Your task to perform on an android device: delete the emails in spam in the gmail app Image 0: 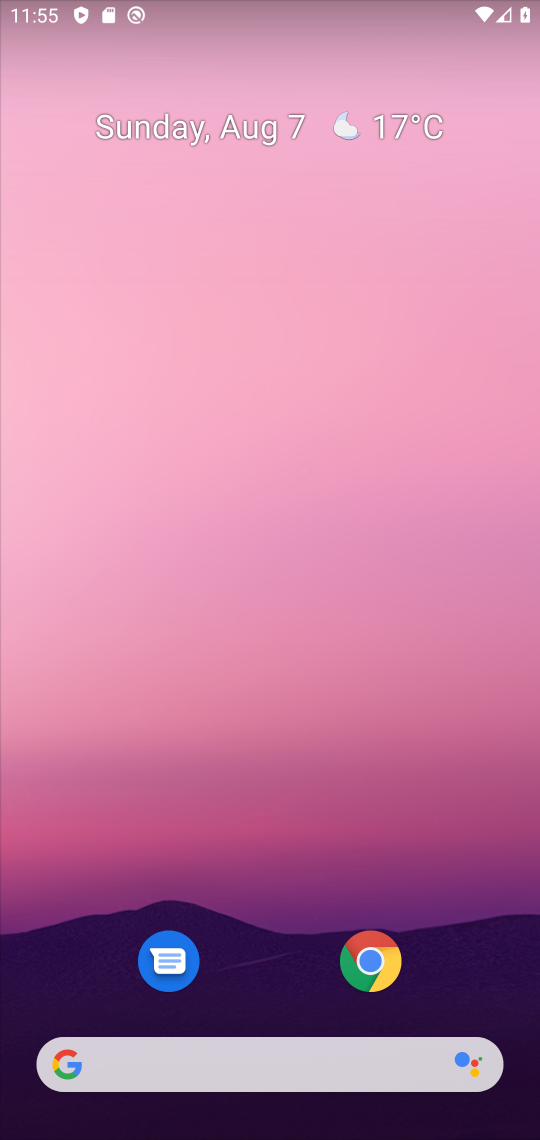
Step 0: click (362, 960)
Your task to perform on an android device: delete the emails in spam in the gmail app Image 1: 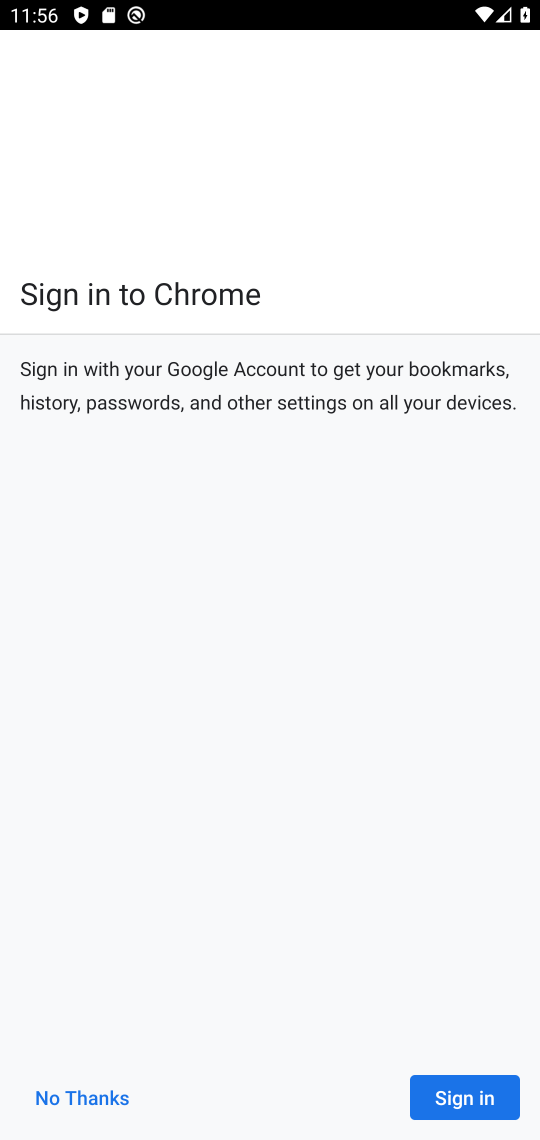
Step 1: click (445, 1101)
Your task to perform on an android device: delete the emails in spam in the gmail app Image 2: 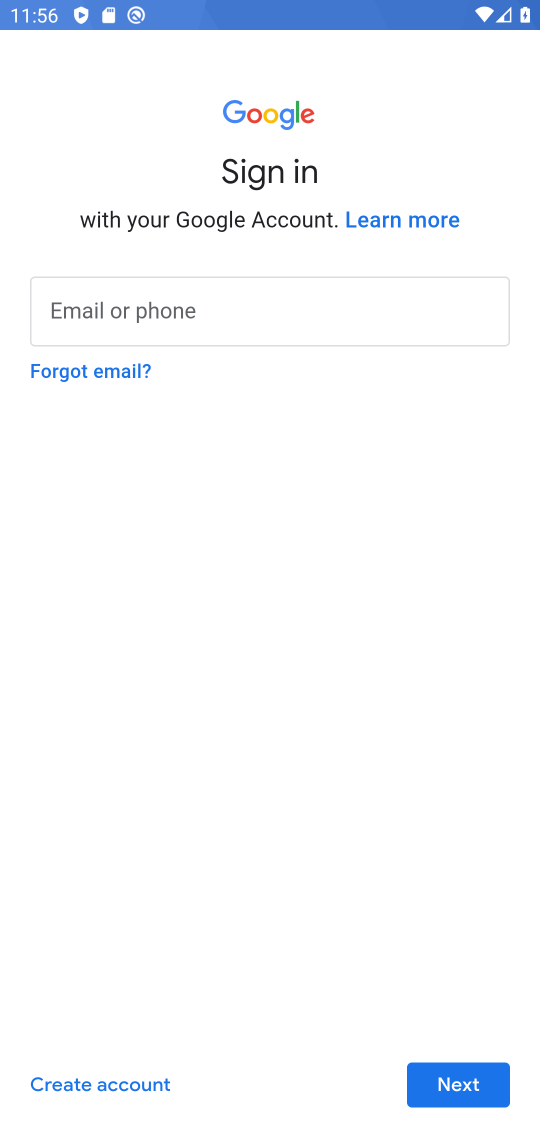
Step 2: task complete